Your task to perform on an android device: remove spam from my inbox in the gmail app Image 0: 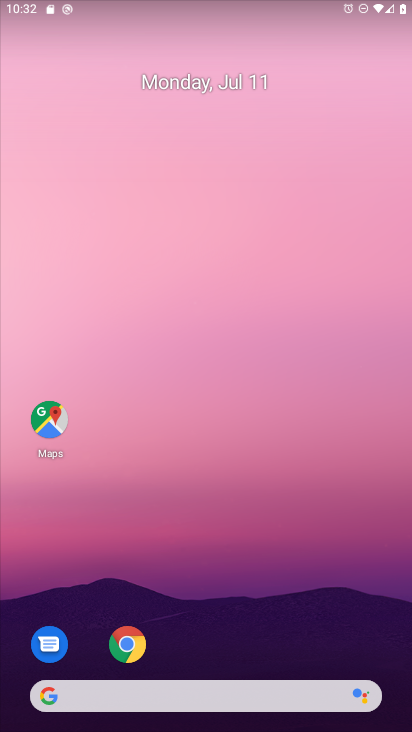
Step 0: press home button
Your task to perform on an android device: remove spam from my inbox in the gmail app Image 1: 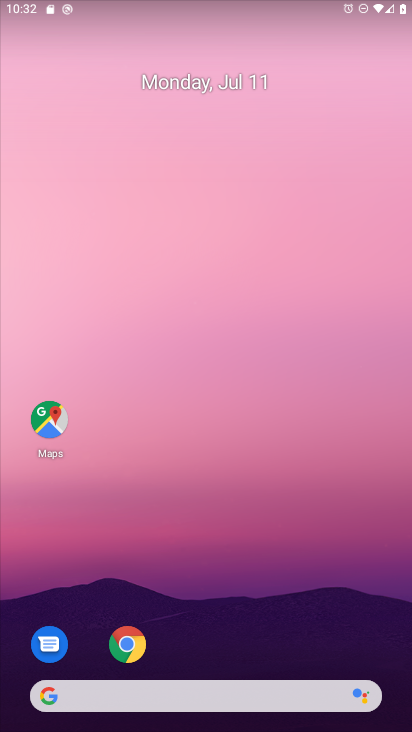
Step 1: drag from (262, 679) to (242, 274)
Your task to perform on an android device: remove spam from my inbox in the gmail app Image 2: 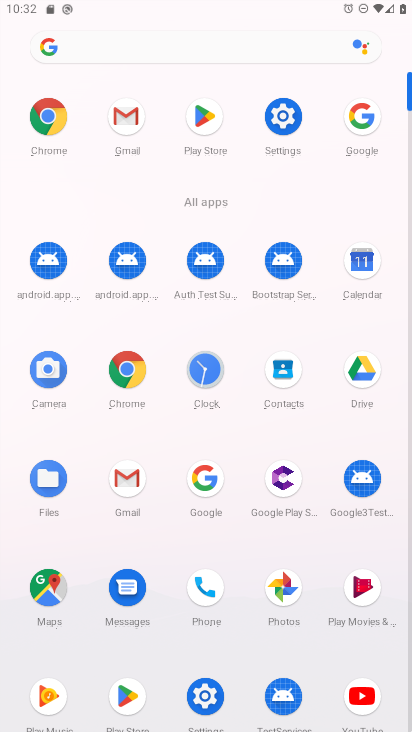
Step 2: click (137, 488)
Your task to perform on an android device: remove spam from my inbox in the gmail app Image 3: 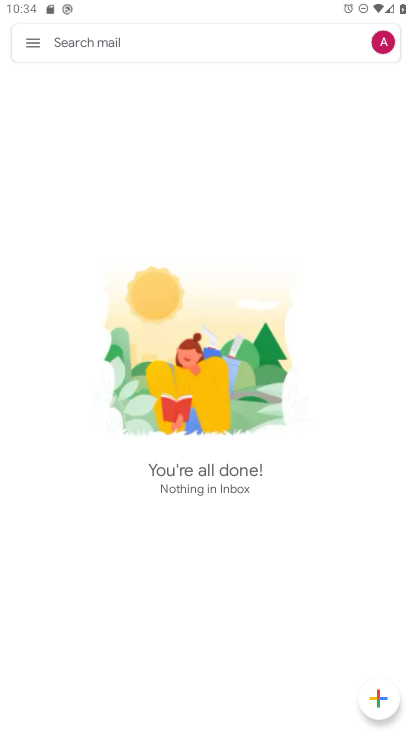
Step 3: task complete